Your task to perform on an android device: Google the capital of Colombia Image 0: 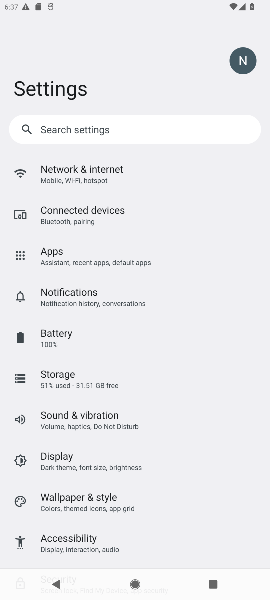
Step 0: press home button
Your task to perform on an android device: Google the capital of Colombia Image 1: 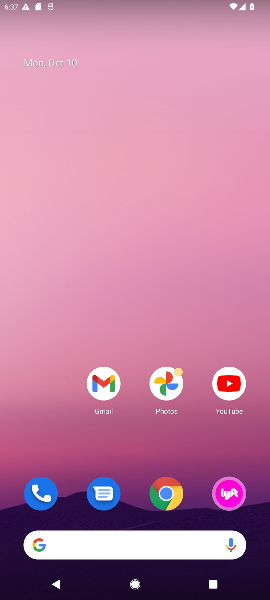
Step 1: drag from (125, 499) to (131, 24)
Your task to perform on an android device: Google the capital of Colombia Image 2: 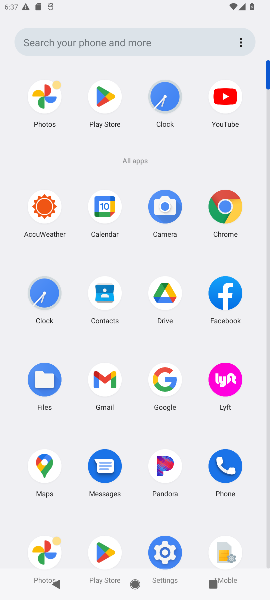
Step 2: click (102, 555)
Your task to perform on an android device: Google the capital of Colombia Image 3: 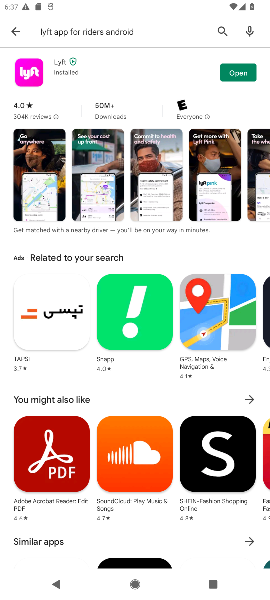
Step 3: click (14, 27)
Your task to perform on an android device: Google the capital of Colombia Image 4: 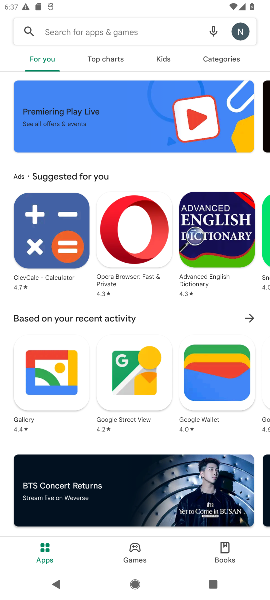
Step 4: click (91, 23)
Your task to perform on an android device: Google the capital of Colombia Image 5: 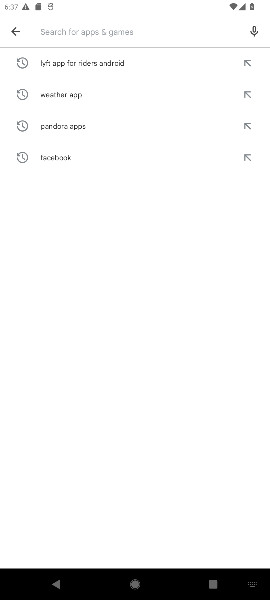
Step 5: type "the capital of Colombia"
Your task to perform on an android device: Google the capital of Colombia Image 6: 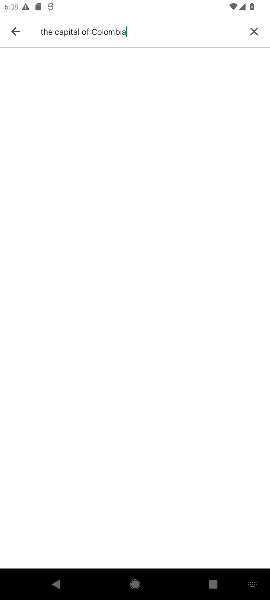
Step 6: click (249, 29)
Your task to perform on an android device: Google the capital of Colombia Image 7: 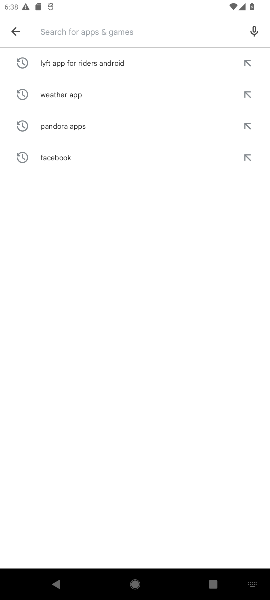
Step 7: type "the capital of Colombia"
Your task to perform on an android device: Google the capital of Colombia Image 8: 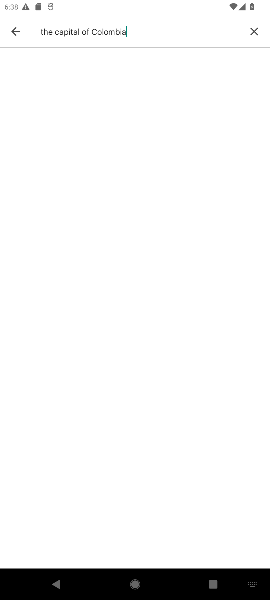
Step 8: click (14, 27)
Your task to perform on an android device: Google the capital of Colombia Image 9: 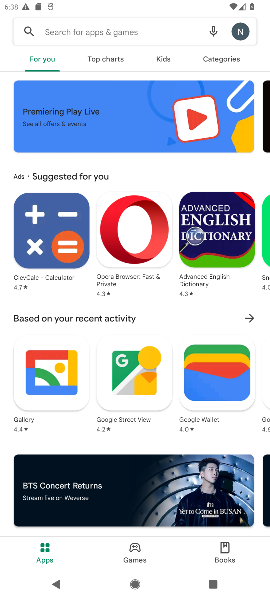
Step 9: click (120, 32)
Your task to perform on an android device: Google the capital of Colombia Image 10: 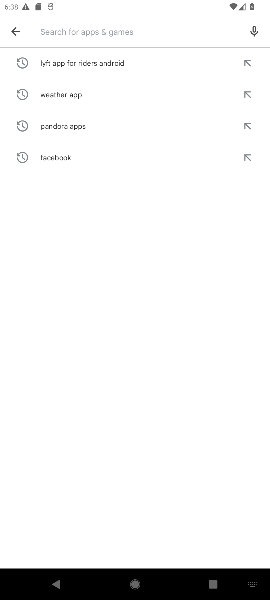
Step 10: type " the capital of Colombia"
Your task to perform on an android device: Google the capital of Colombia Image 11: 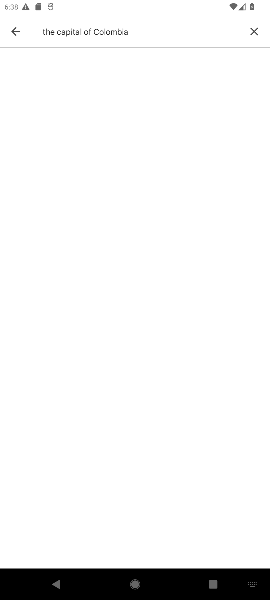
Step 11: click (13, 27)
Your task to perform on an android device: Google the capital of Colombia Image 12: 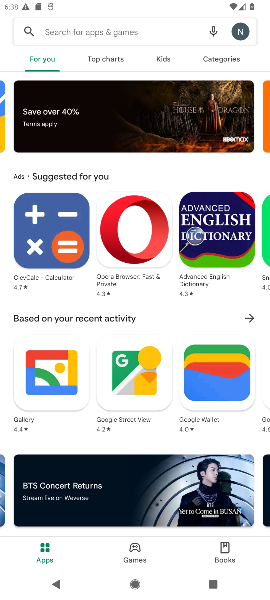
Step 12: press back button
Your task to perform on an android device: Google the capital of Colombia Image 13: 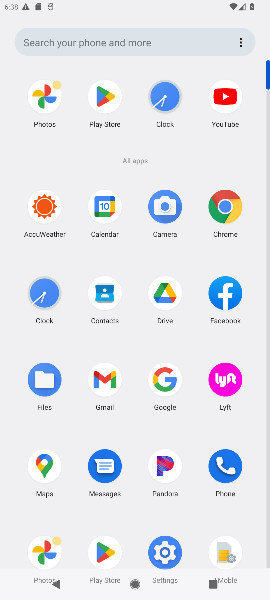
Step 13: press back button
Your task to perform on an android device: Google the capital of Colombia Image 14: 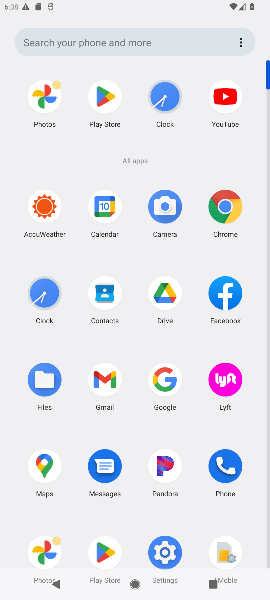
Step 14: press back button
Your task to perform on an android device: Google the capital of Colombia Image 15: 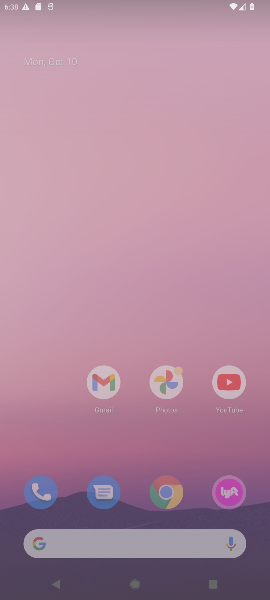
Step 15: press back button
Your task to perform on an android device: Google the capital of Colombia Image 16: 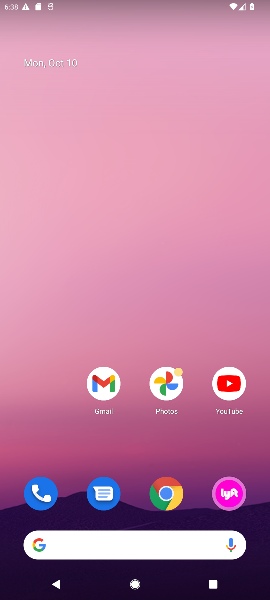
Step 16: press back button
Your task to perform on an android device: Google the capital of Colombia Image 17: 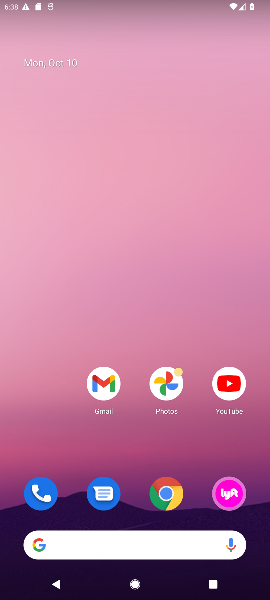
Step 17: press back button
Your task to perform on an android device: Google the capital of Colombia Image 18: 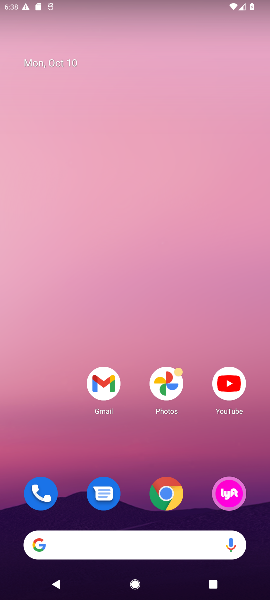
Step 18: press back button
Your task to perform on an android device: Google the capital of Colombia Image 19: 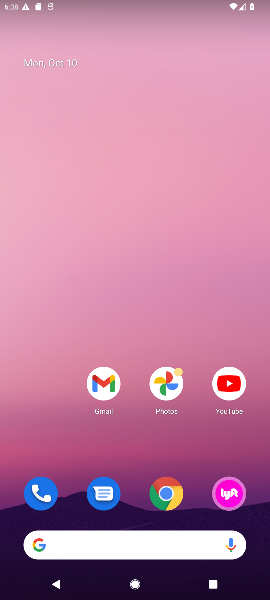
Step 19: press back button
Your task to perform on an android device: Google the capital of Colombia Image 20: 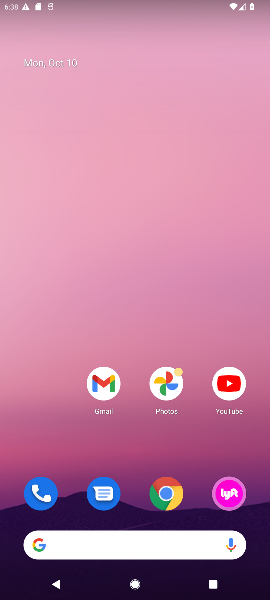
Step 20: press back button
Your task to perform on an android device: Google the capital of Colombia Image 21: 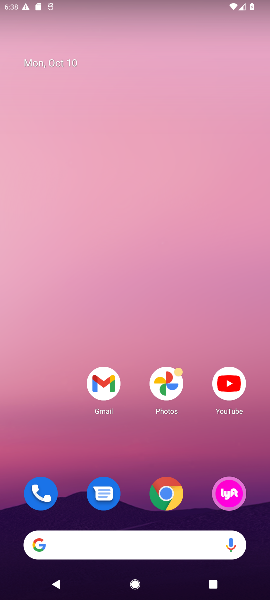
Step 21: click (116, 551)
Your task to perform on an android device: Google the capital of Colombia Image 22: 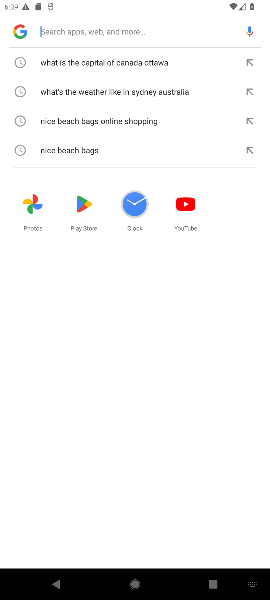
Step 22: type " capital of Colombia"
Your task to perform on an android device: Google the capital of Colombia Image 23: 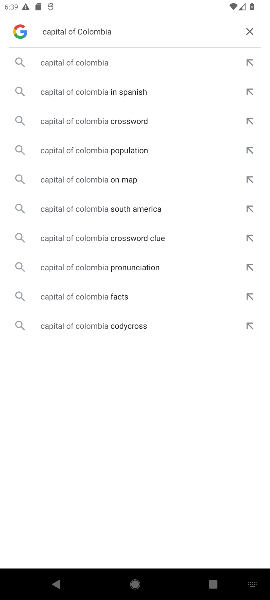
Step 23: click (87, 58)
Your task to perform on an android device: Google the capital of Colombia Image 24: 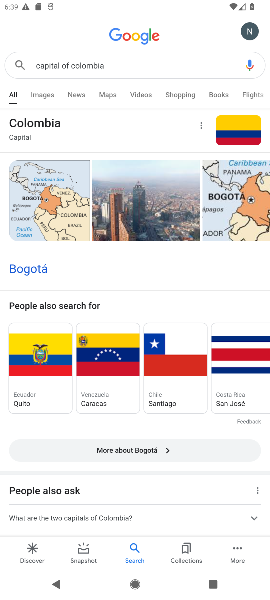
Step 24: task complete